Your task to perform on an android device: uninstall "Pluto TV - Live TV and Movies" Image 0: 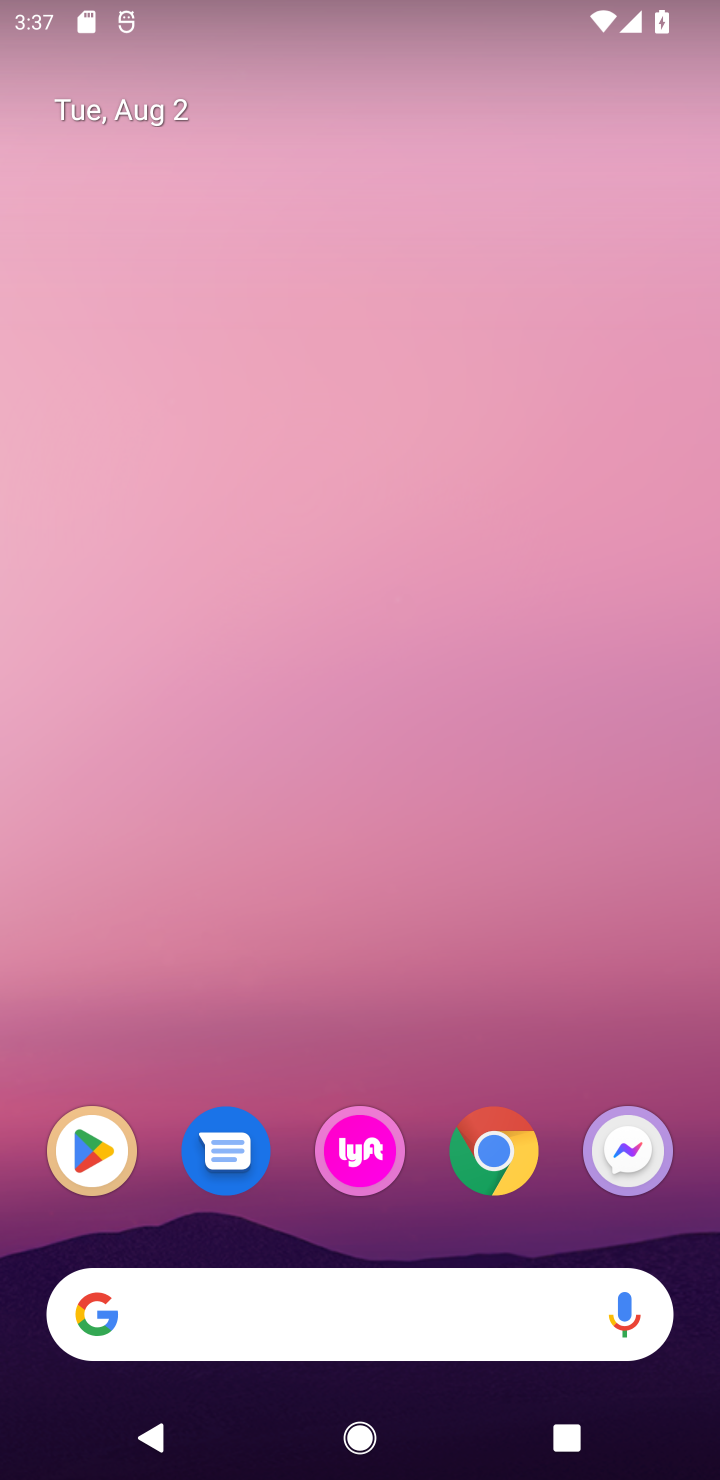
Step 0: drag from (403, 1426) to (403, 271)
Your task to perform on an android device: uninstall "Pluto TV - Live TV and Movies" Image 1: 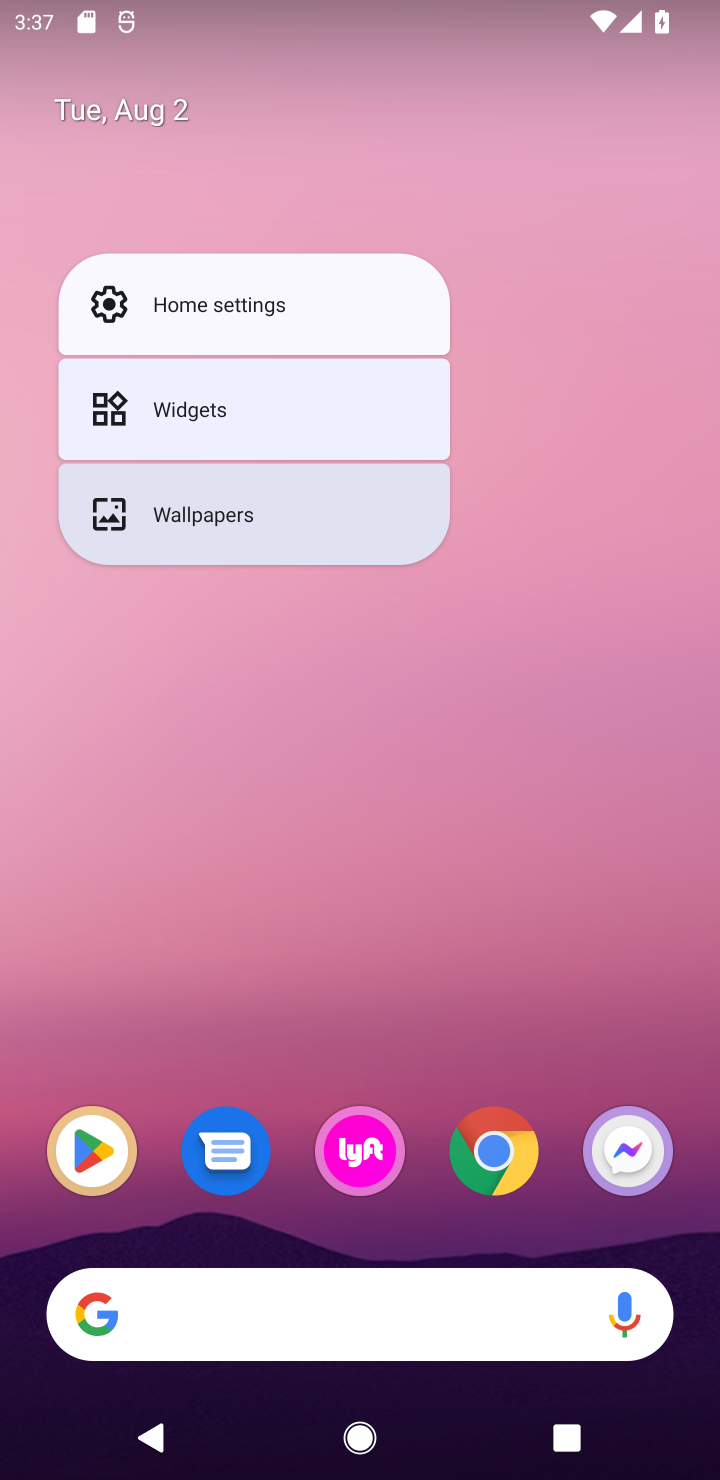
Step 1: click (355, 681)
Your task to perform on an android device: uninstall "Pluto TV - Live TV and Movies" Image 2: 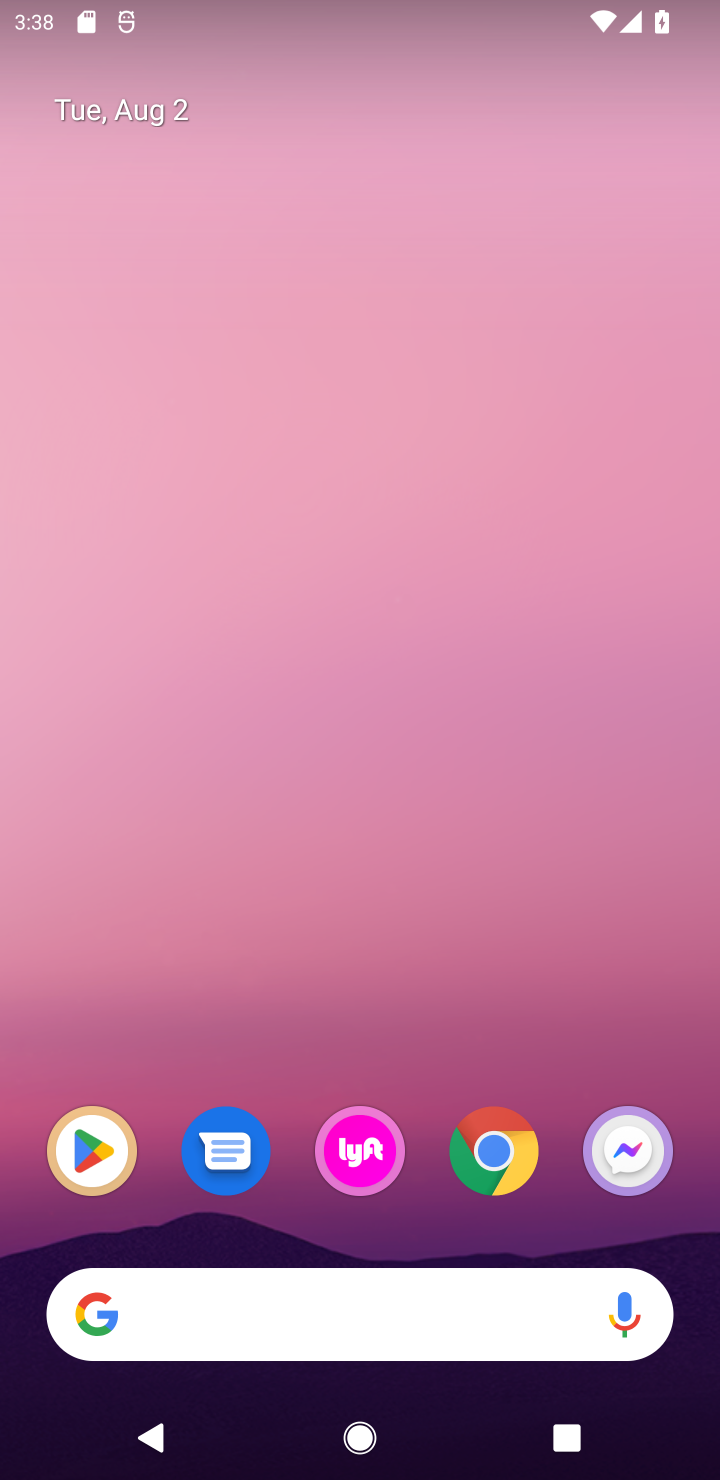
Step 2: drag from (405, 1204) to (332, 412)
Your task to perform on an android device: uninstall "Pluto TV - Live TV and Movies" Image 3: 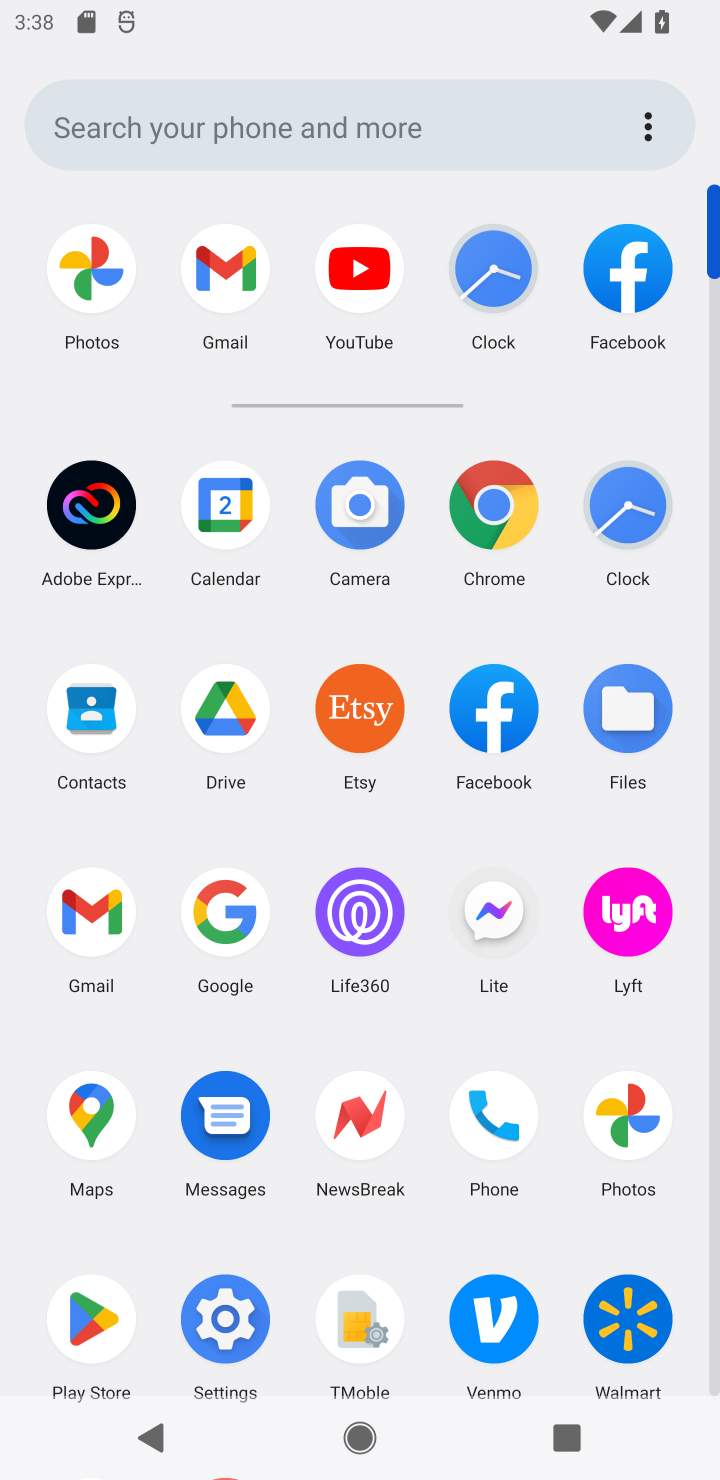
Step 3: click (82, 1317)
Your task to perform on an android device: uninstall "Pluto TV - Live TV and Movies" Image 4: 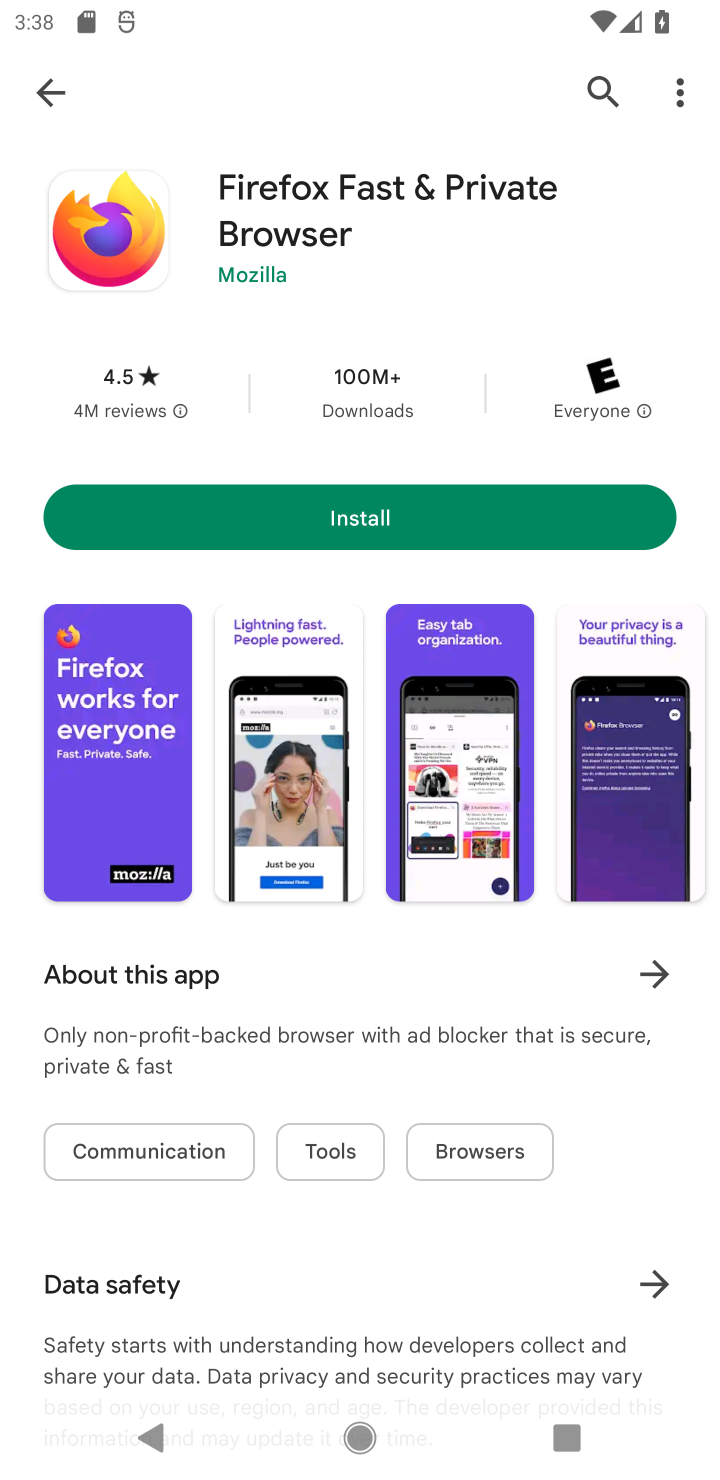
Step 4: click (606, 80)
Your task to perform on an android device: uninstall "Pluto TV - Live TV and Movies" Image 5: 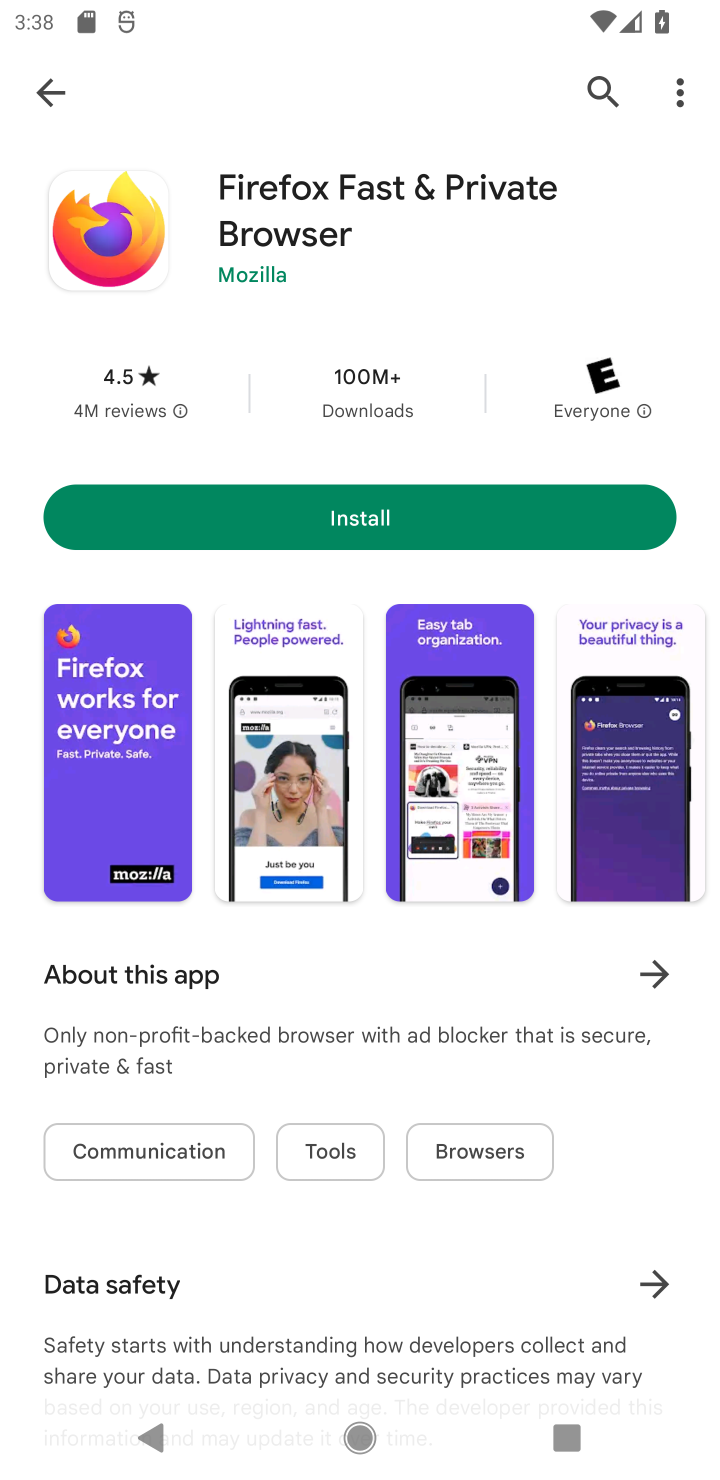
Step 5: click (611, 95)
Your task to perform on an android device: uninstall "Pluto TV - Live TV and Movies" Image 6: 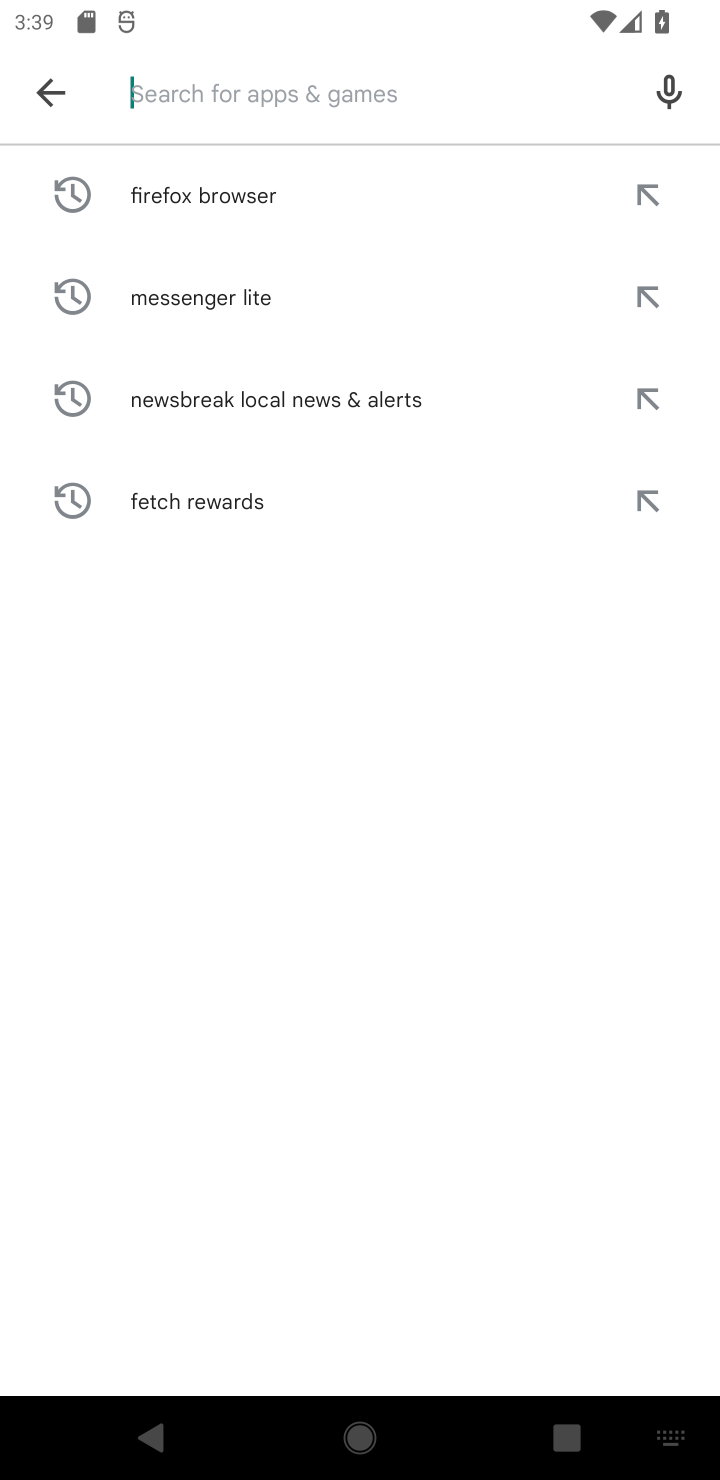
Step 6: type "Pluto TV - Live TV and Movies"
Your task to perform on an android device: uninstall "Pluto TV - Live TV and Movies" Image 7: 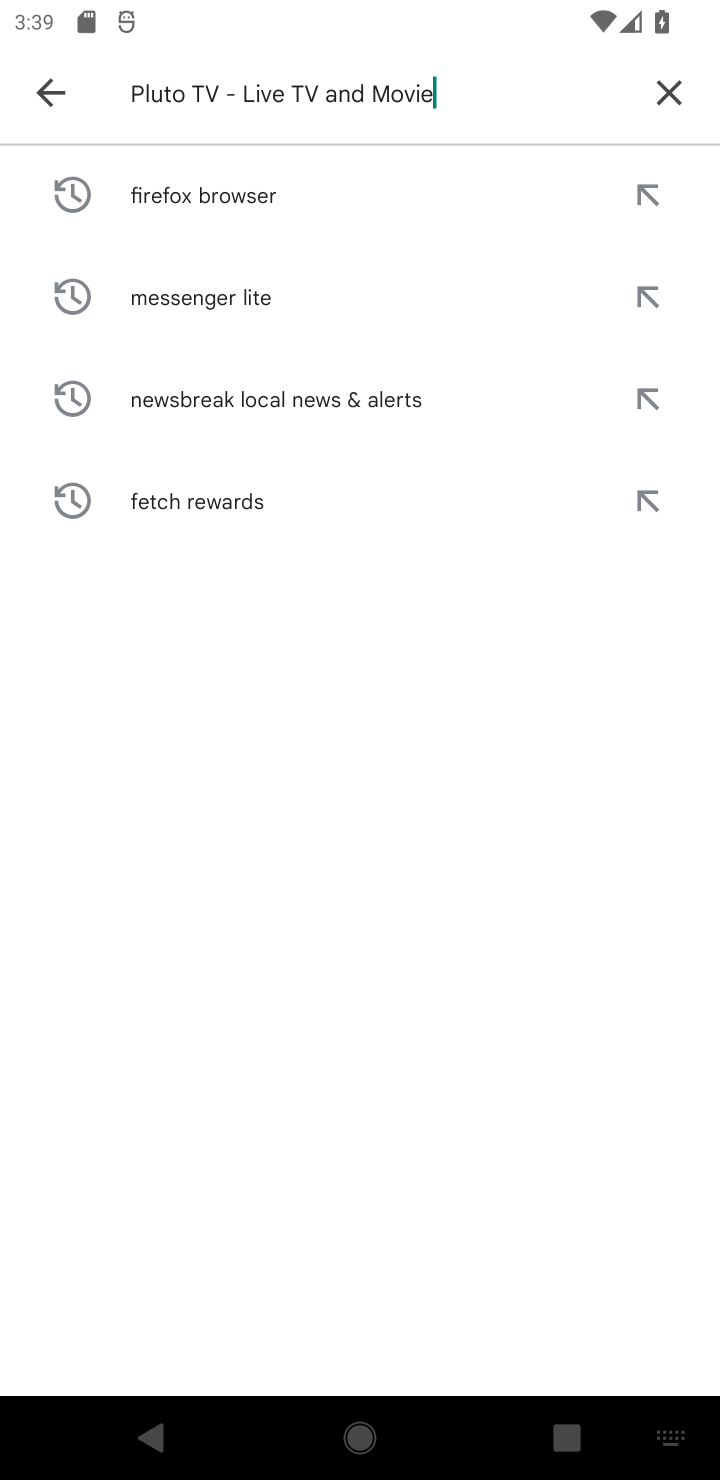
Step 7: type ""
Your task to perform on an android device: uninstall "Pluto TV - Live TV and Movies" Image 8: 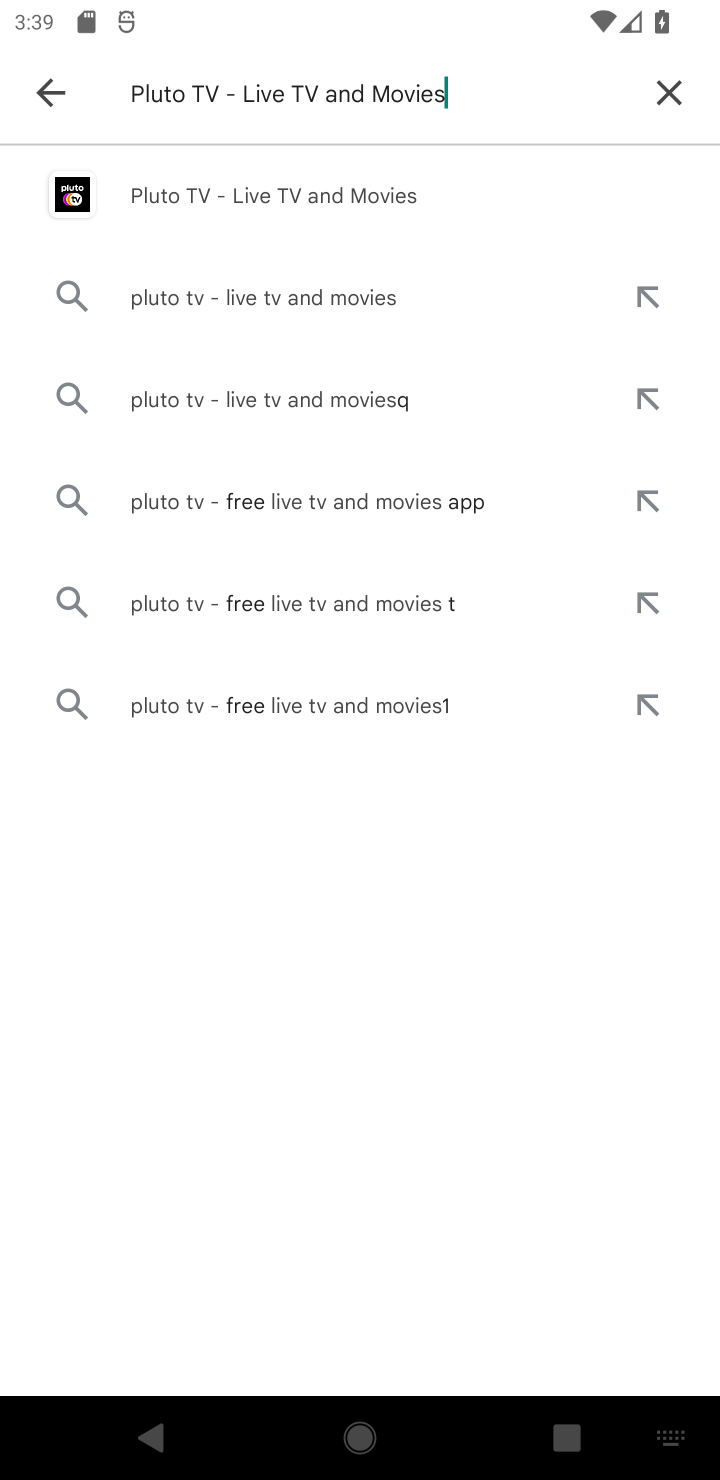
Step 8: click (330, 181)
Your task to perform on an android device: uninstall "Pluto TV - Live TV and Movies" Image 9: 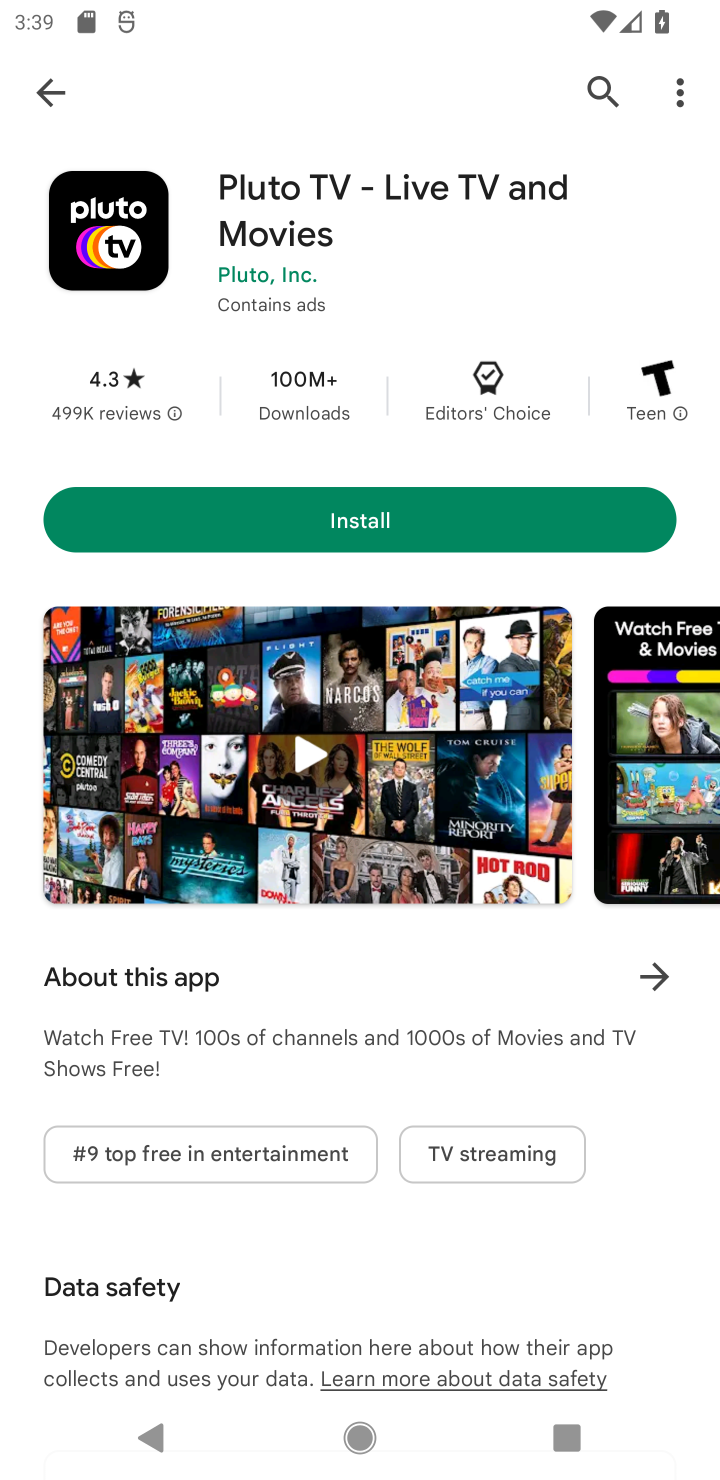
Step 9: task complete